Your task to perform on an android device: Go to Yahoo.com Image 0: 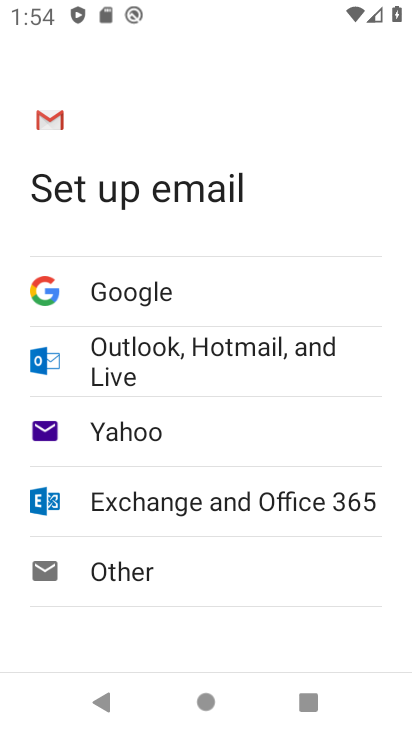
Step 0: press home button
Your task to perform on an android device: Go to Yahoo.com Image 1: 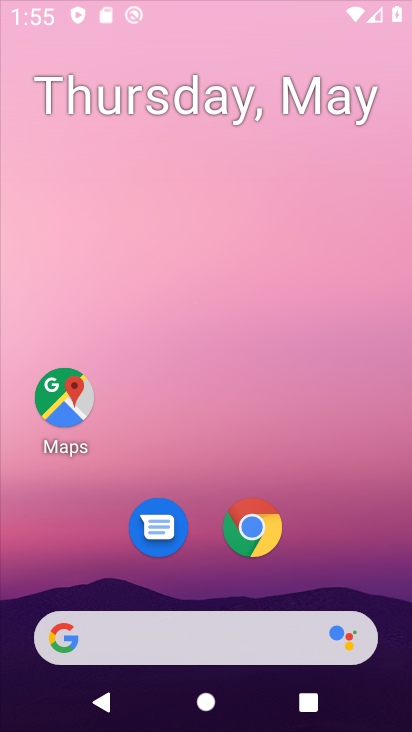
Step 1: press home button
Your task to perform on an android device: Go to Yahoo.com Image 2: 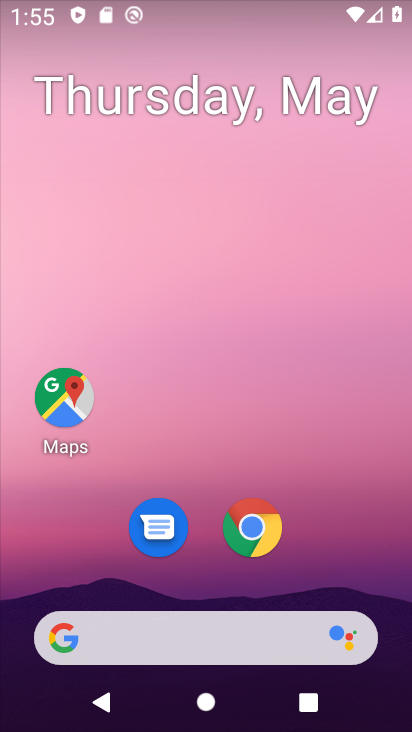
Step 2: click (263, 515)
Your task to perform on an android device: Go to Yahoo.com Image 3: 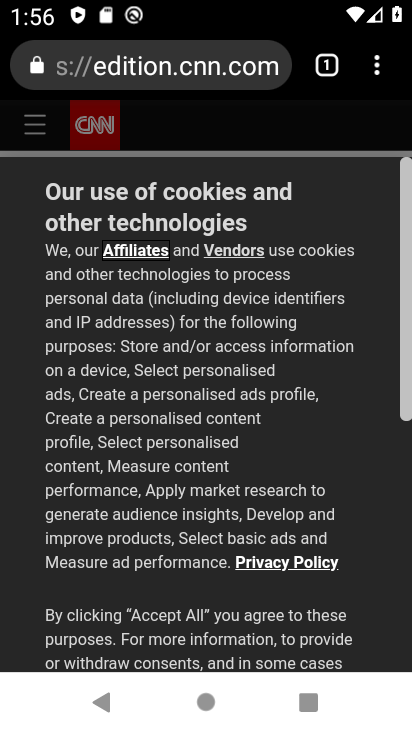
Step 3: click (229, 70)
Your task to perform on an android device: Go to Yahoo.com Image 4: 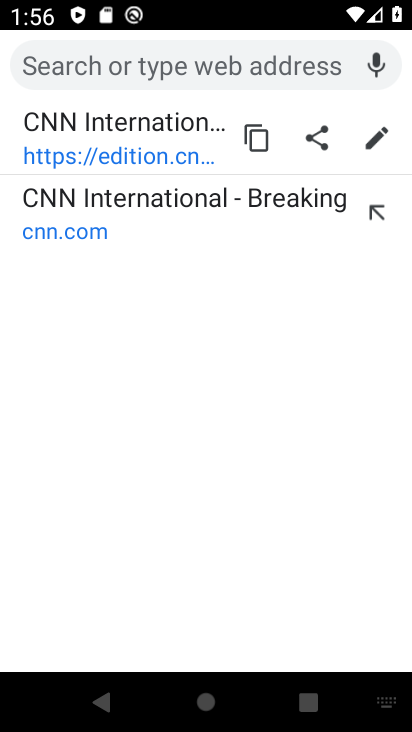
Step 4: type " Yahoo.com"
Your task to perform on an android device: Go to Yahoo.com Image 5: 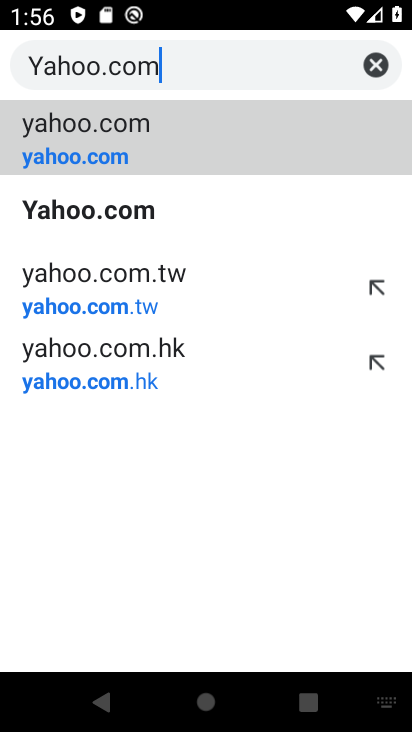
Step 5: click (162, 152)
Your task to perform on an android device: Go to Yahoo.com Image 6: 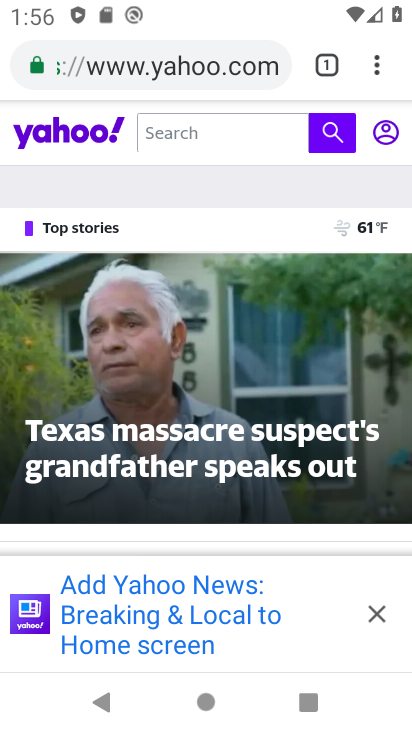
Step 6: task complete